Your task to perform on an android device: change the clock style Image 0: 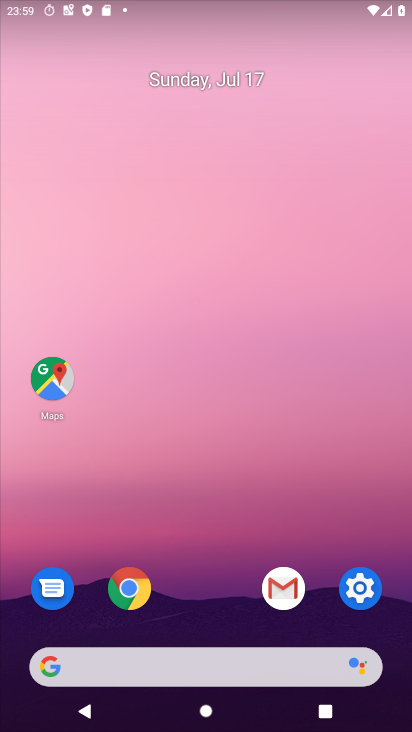
Step 0: press home button
Your task to perform on an android device: change the clock style Image 1: 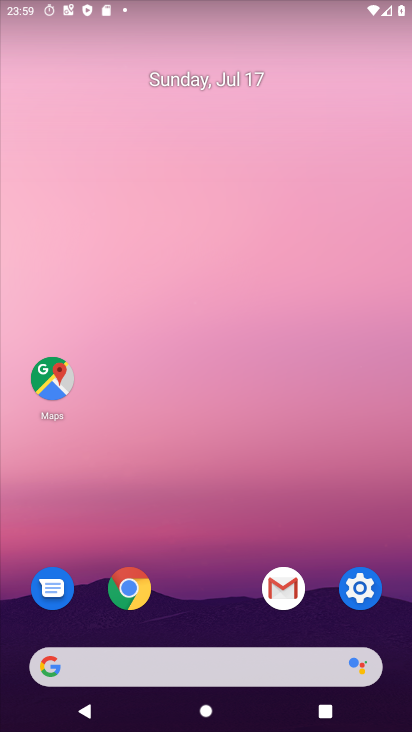
Step 1: drag from (264, 674) to (177, 103)
Your task to perform on an android device: change the clock style Image 2: 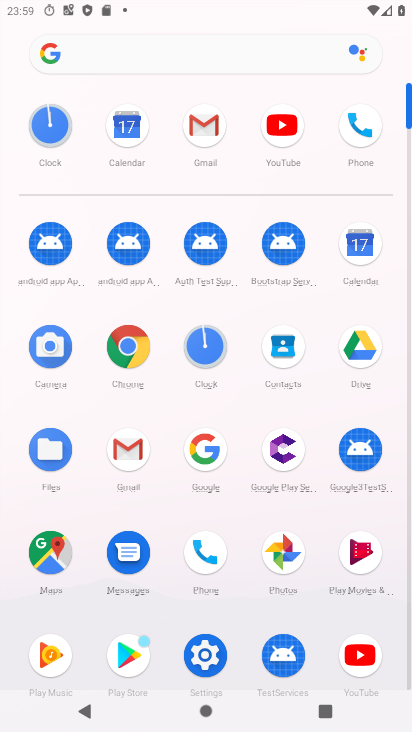
Step 2: click (211, 341)
Your task to perform on an android device: change the clock style Image 3: 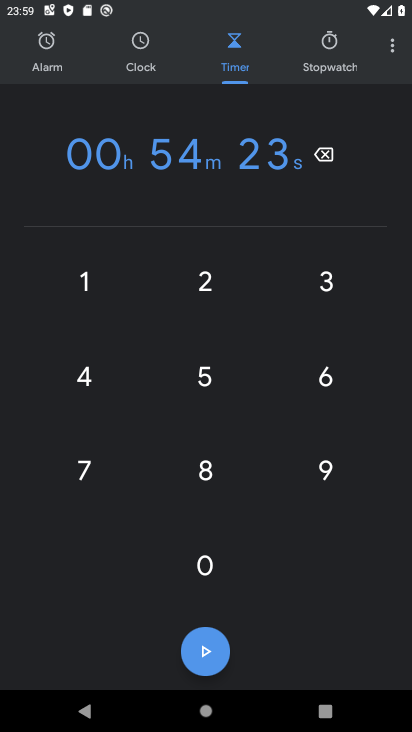
Step 3: click (392, 43)
Your task to perform on an android device: change the clock style Image 4: 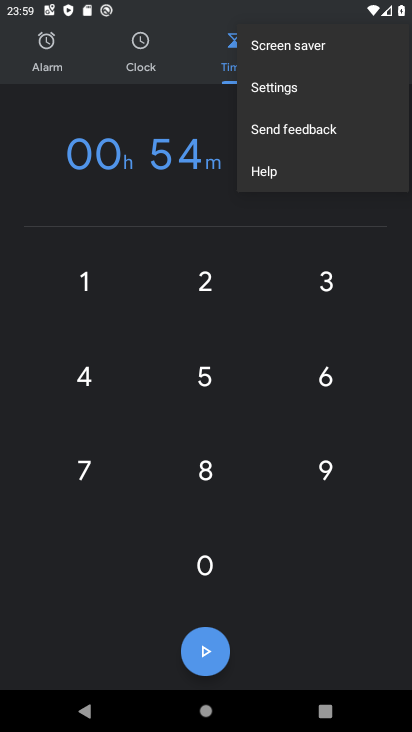
Step 4: click (306, 83)
Your task to perform on an android device: change the clock style Image 5: 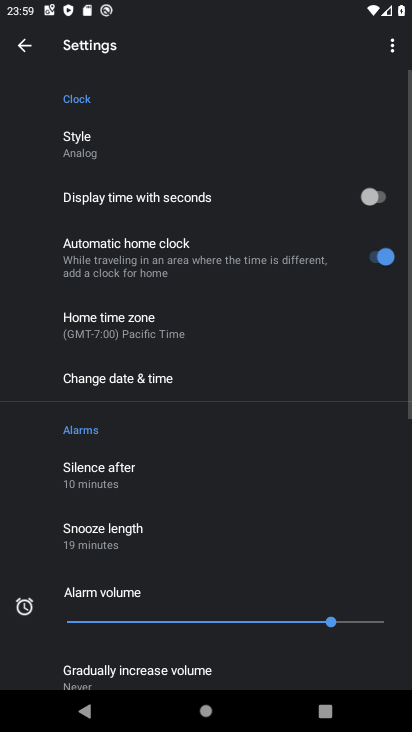
Step 5: click (105, 141)
Your task to perform on an android device: change the clock style Image 6: 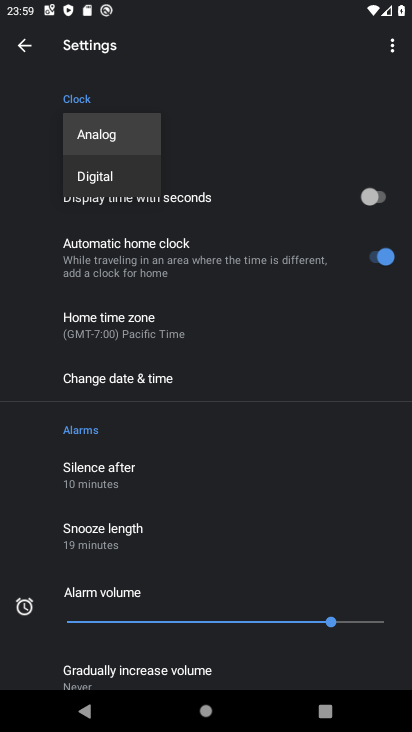
Step 6: click (106, 182)
Your task to perform on an android device: change the clock style Image 7: 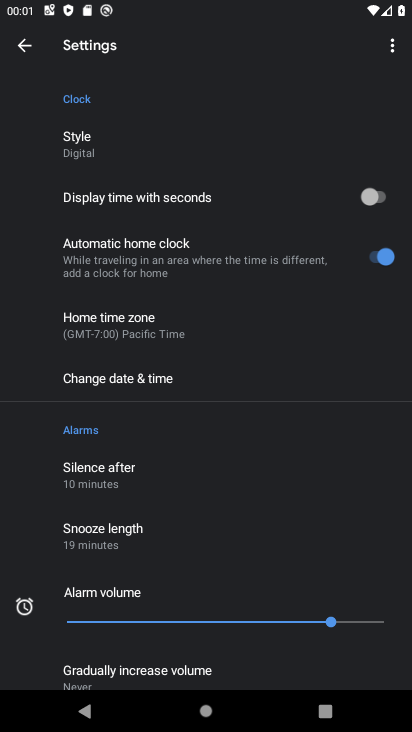
Step 7: task complete